Your task to perform on an android device: toggle wifi Image 0: 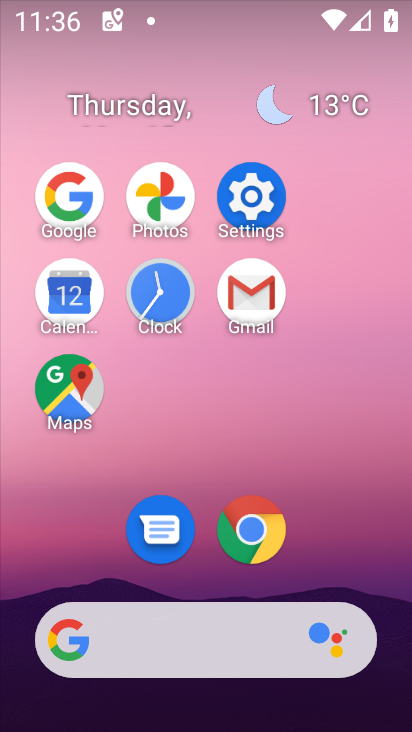
Step 0: click (254, 194)
Your task to perform on an android device: toggle wifi Image 1: 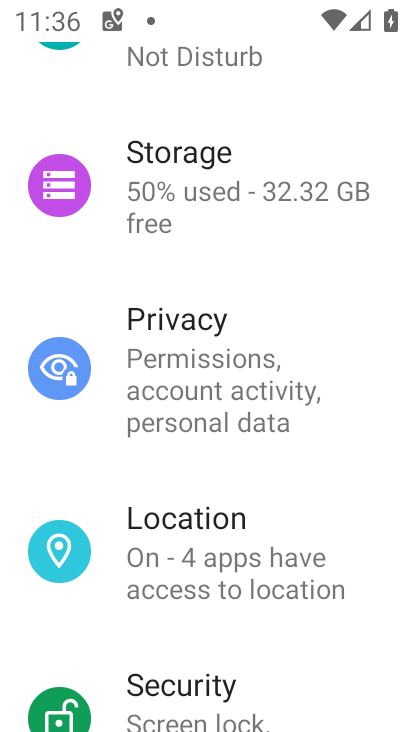
Step 1: drag from (282, 256) to (275, 612)
Your task to perform on an android device: toggle wifi Image 2: 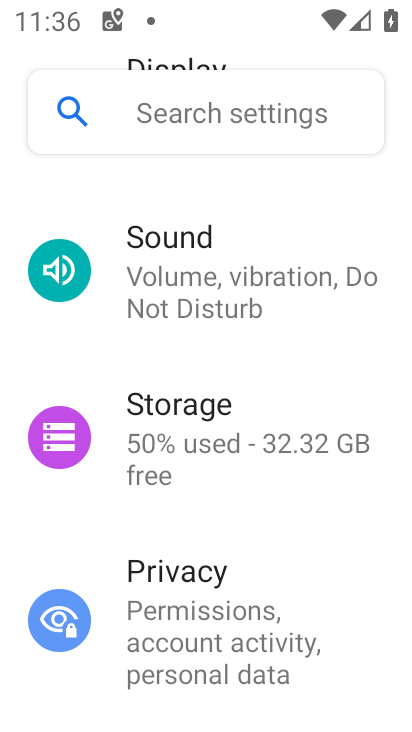
Step 2: drag from (346, 188) to (268, 611)
Your task to perform on an android device: toggle wifi Image 3: 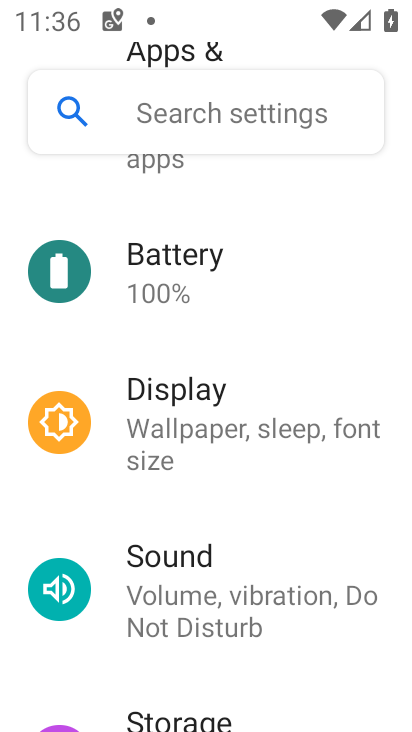
Step 3: drag from (334, 151) to (296, 599)
Your task to perform on an android device: toggle wifi Image 4: 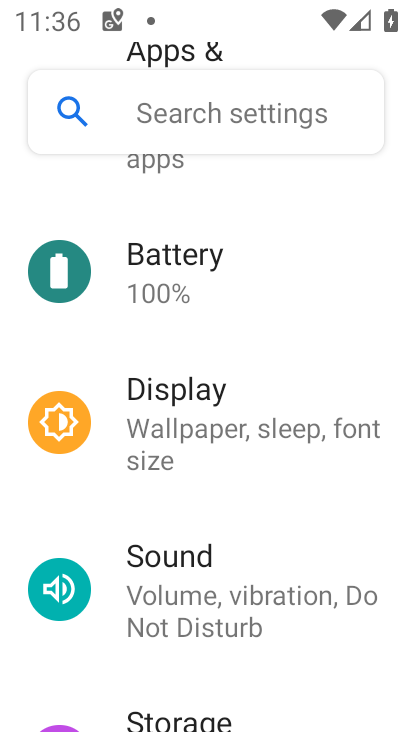
Step 4: drag from (309, 237) to (319, 640)
Your task to perform on an android device: toggle wifi Image 5: 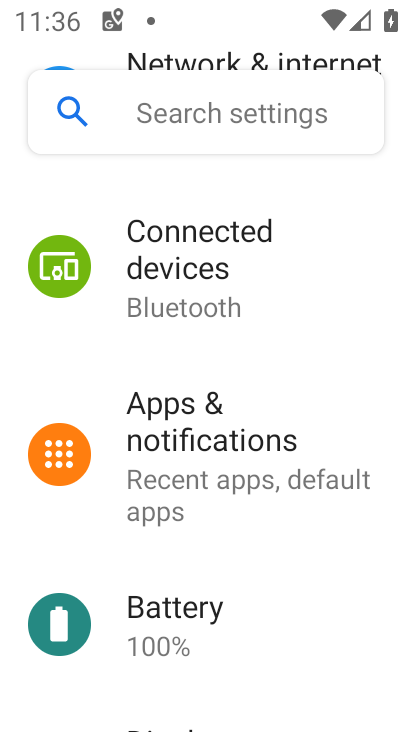
Step 5: drag from (303, 246) to (282, 612)
Your task to perform on an android device: toggle wifi Image 6: 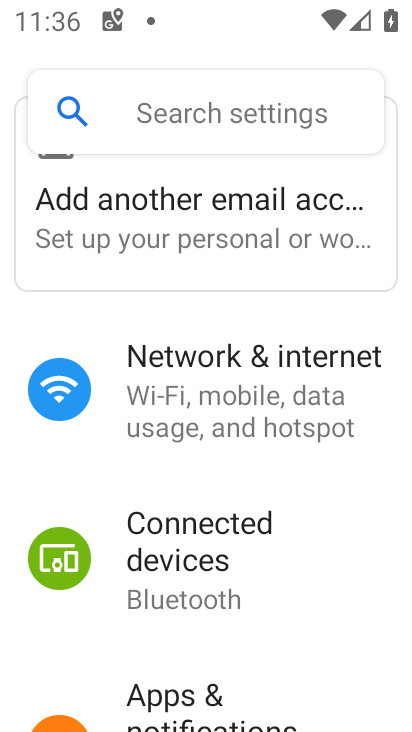
Step 6: click (264, 385)
Your task to perform on an android device: toggle wifi Image 7: 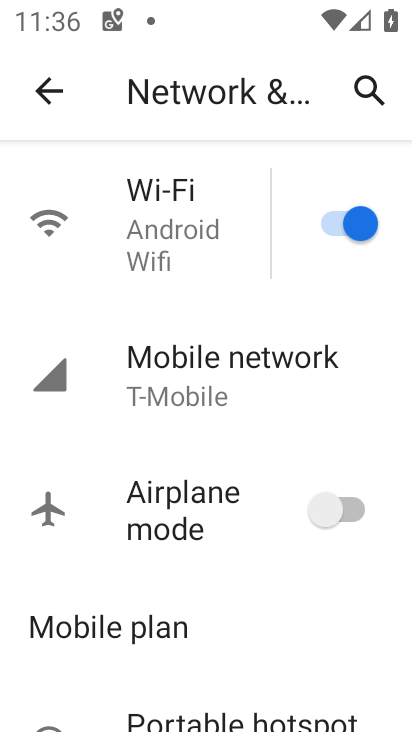
Step 7: click (347, 232)
Your task to perform on an android device: toggle wifi Image 8: 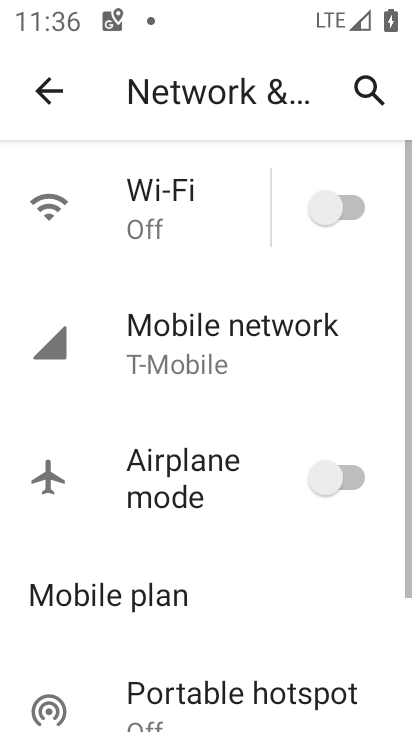
Step 8: task complete